Your task to perform on an android device: show emergency info Image 0: 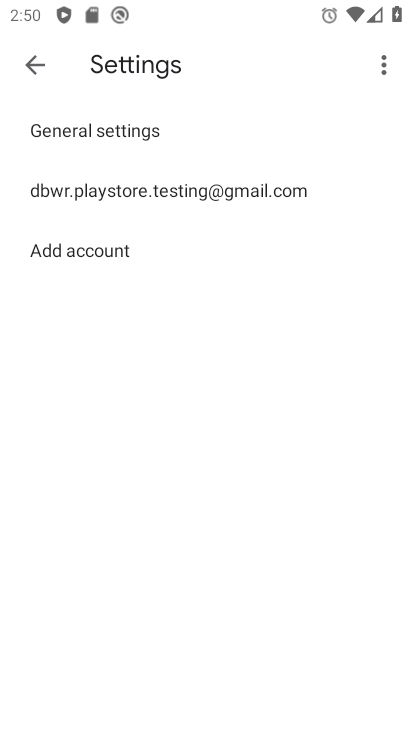
Step 0: press back button
Your task to perform on an android device: show emergency info Image 1: 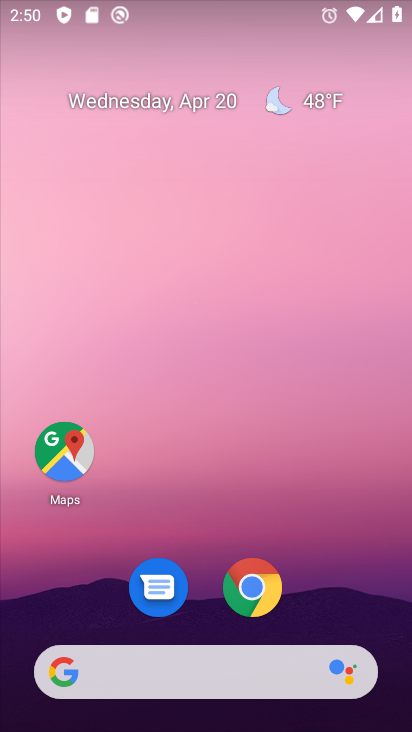
Step 1: drag from (199, 649) to (354, 76)
Your task to perform on an android device: show emergency info Image 2: 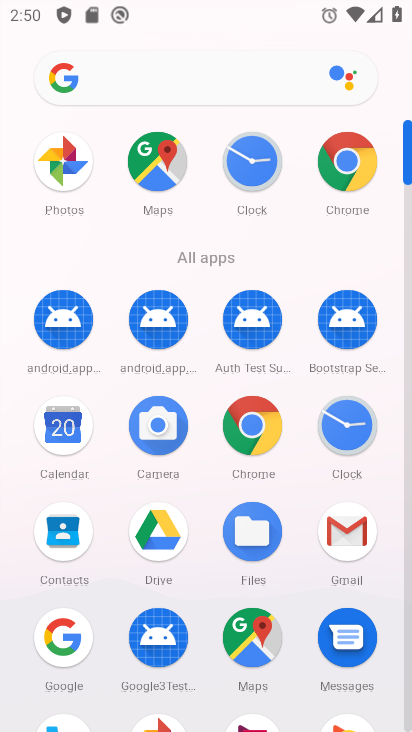
Step 2: drag from (110, 557) to (237, 266)
Your task to perform on an android device: show emergency info Image 3: 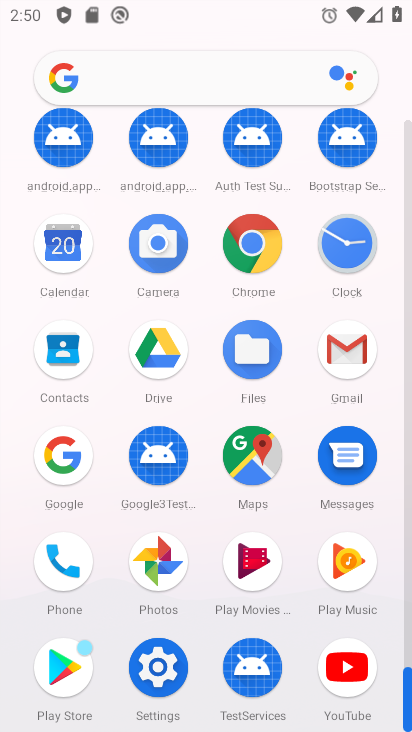
Step 3: click (166, 689)
Your task to perform on an android device: show emergency info Image 4: 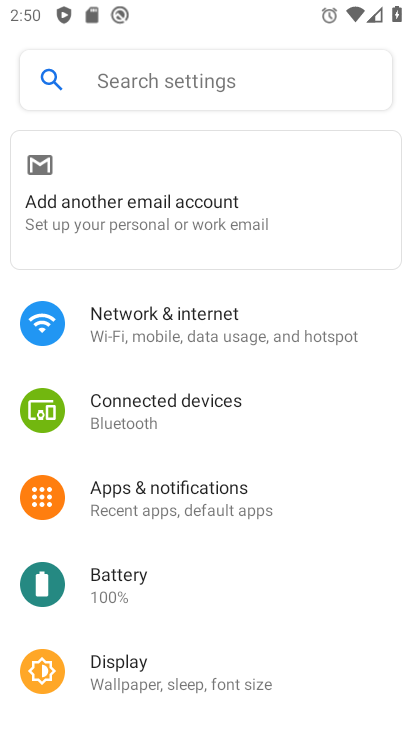
Step 4: drag from (215, 668) to (357, 198)
Your task to perform on an android device: show emergency info Image 5: 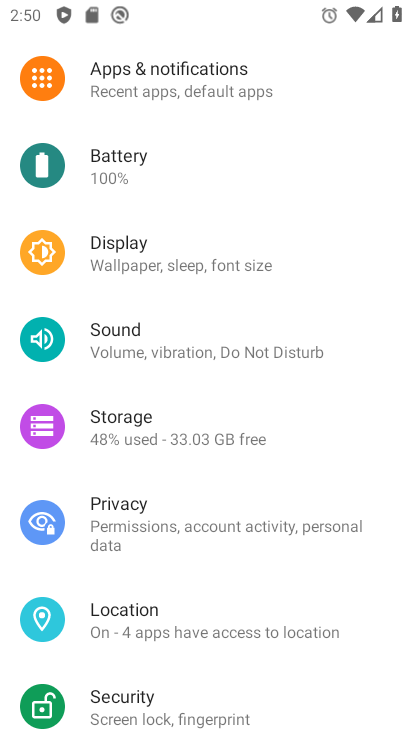
Step 5: drag from (185, 595) to (292, 277)
Your task to perform on an android device: show emergency info Image 6: 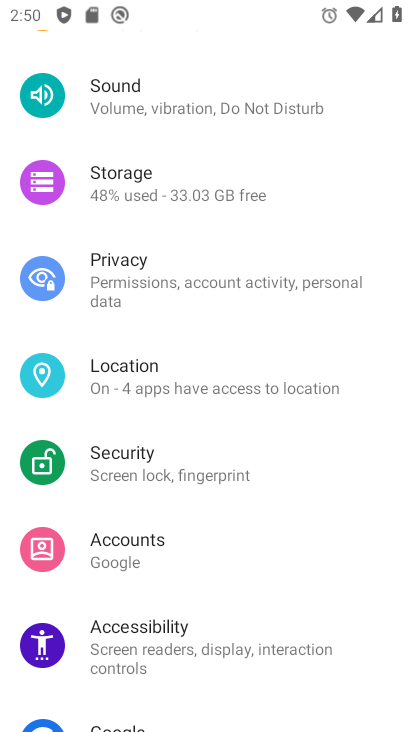
Step 6: drag from (228, 638) to (358, 242)
Your task to perform on an android device: show emergency info Image 7: 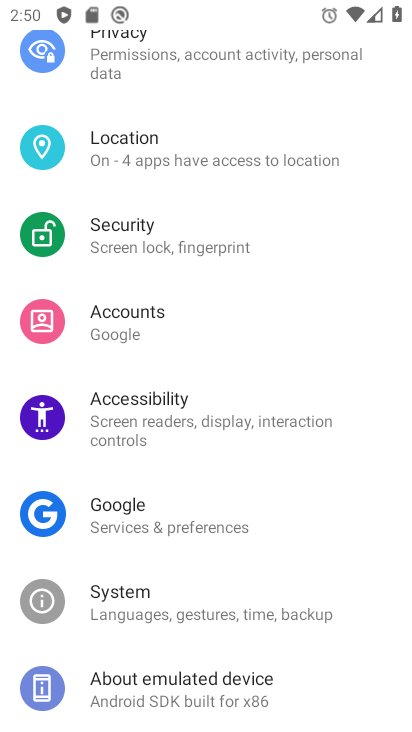
Step 7: click (215, 690)
Your task to perform on an android device: show emergency info Image 8: 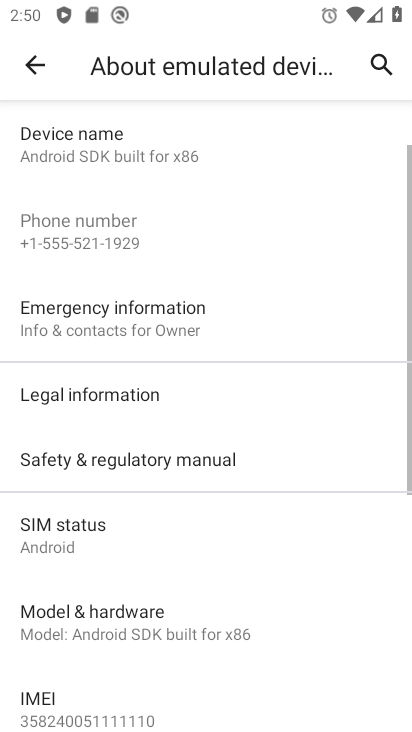
Step 8: click (261, 337)
Your task to perform on an android device: show emergency info Image 9: 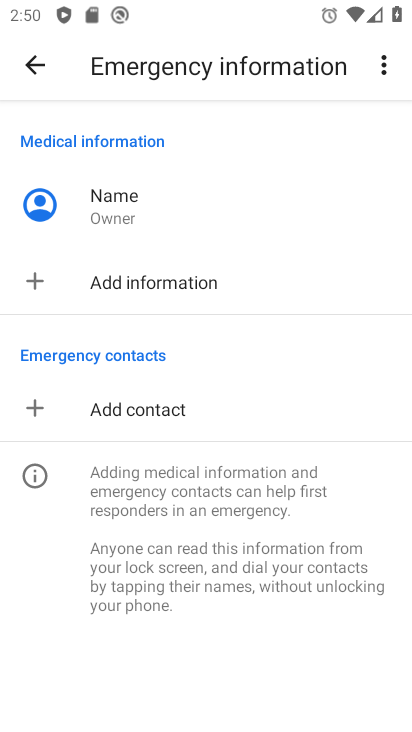
Step 9: task complete